Your task to perform on an android device: Search for vegetarian restaurants on Maps Image 0: 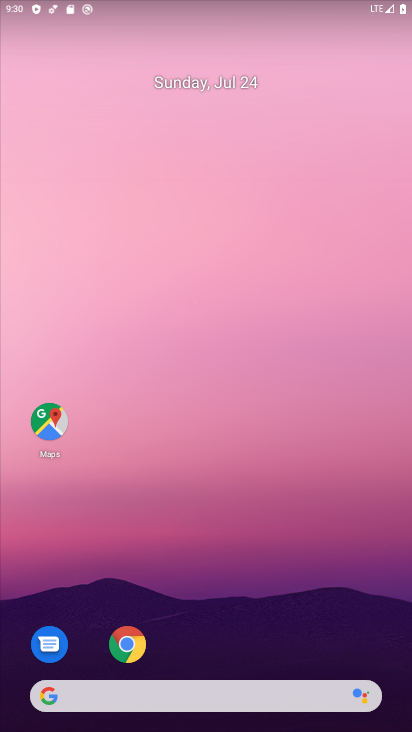
Step 0: click (36, 424)
Your task to perform on an android device: Search for vegetarian restaurants on Maps Image 1: 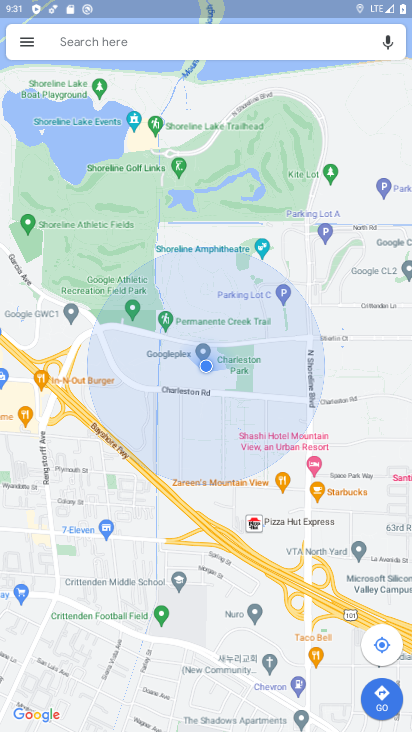
Step 1: click (111, 53)
Your task to perform on an android device: Search for vegetarian restaurants on Maps Image 2: 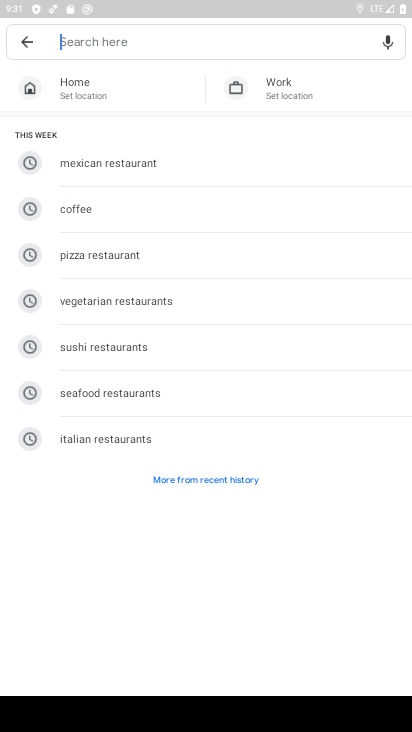
Step 2: click (95, 305)
Your task to perform on an android device: Search for vegetarian restaurants on Maps Image 3: 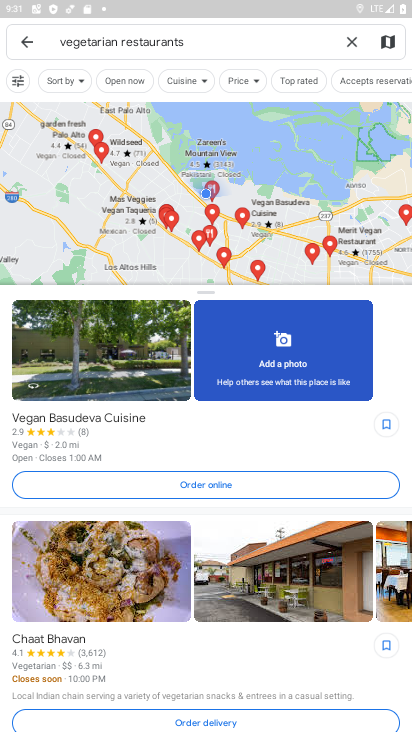
Step 3: task complete